Your task to perform on an android device: Search for pizza restaurants on Maps Image 0: 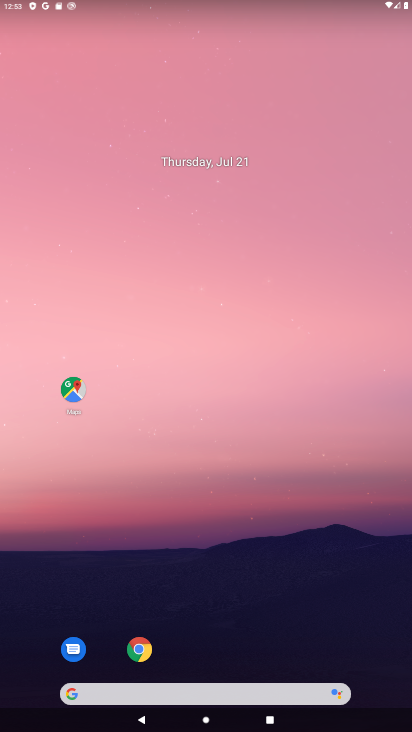
Step 0: click (72, 398)
Your task to perform on an android device: Search for pizza restaurants on Maps Image 1: 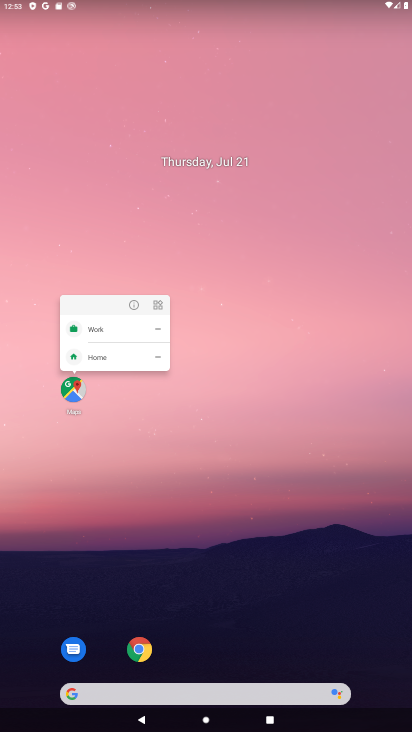
Step 1: click (72, 406)
Your task to perform on an android device: Search for pizza restaurants on Maps Image 2: 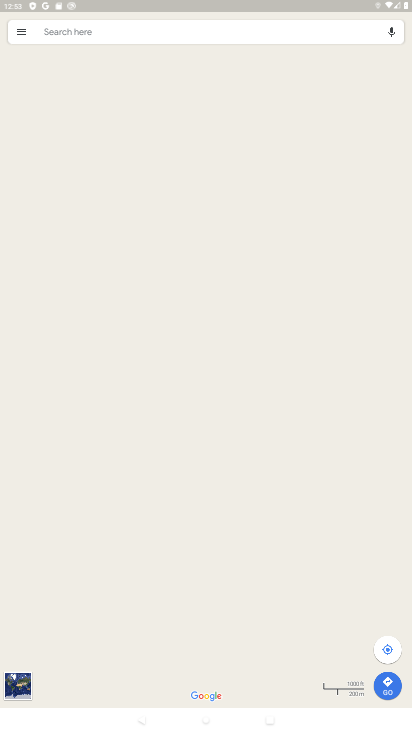
Step 2: click (95, 30)
Your task to perform on an android device: Search for pizza restaurants on Maps Image 3: 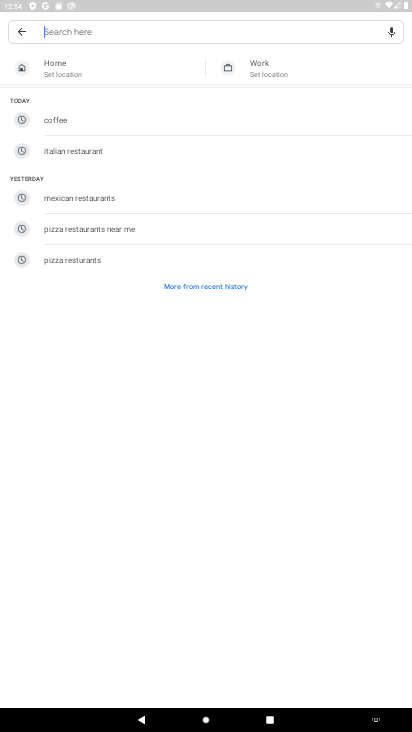
Step 3: type "pizza restaurants"
Your task to perform on an android device: Search for pizza restaurants on Maps Image 4: 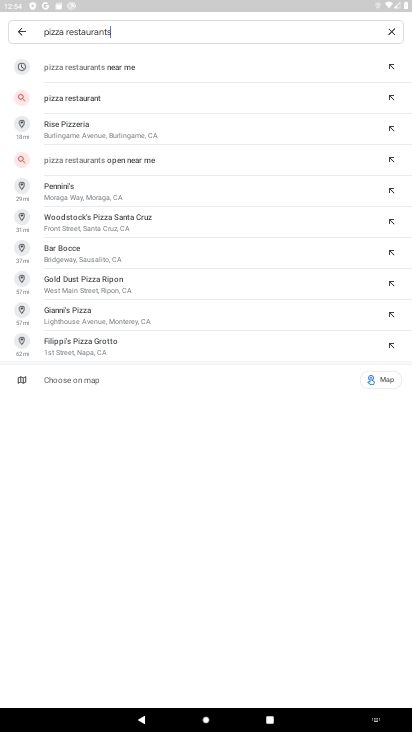
Step 4: click (67, 104)
Your task to perform on an android device: Search for pizza restaurants on Maps Image 5: 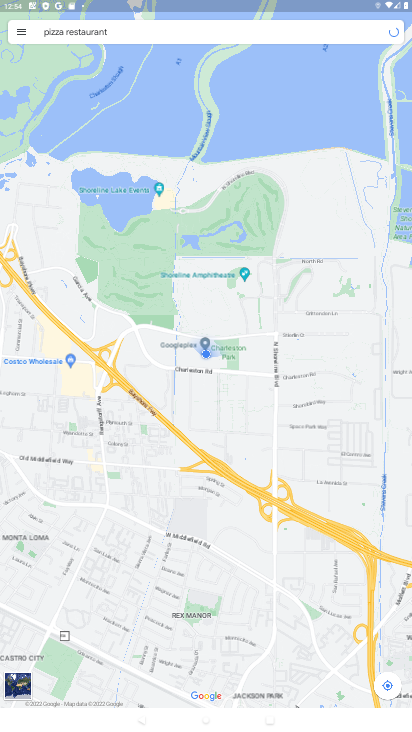
Step 5: task complete